Your task to perform on an android device: Open Wikipedia Image 0: 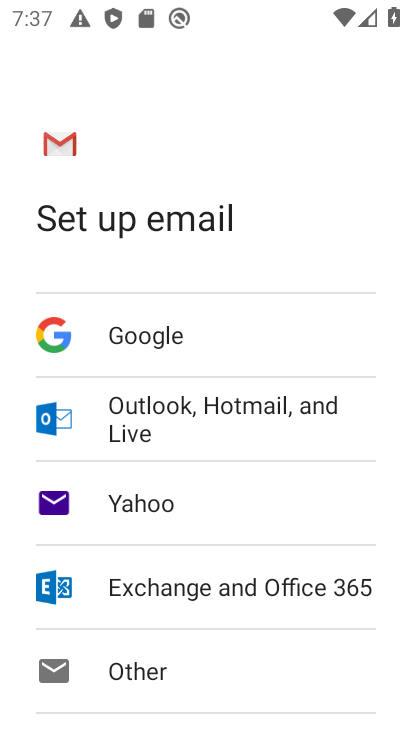
Step 0: press home button
Your task to perform on an android device: Open Wikipedia Image 1: 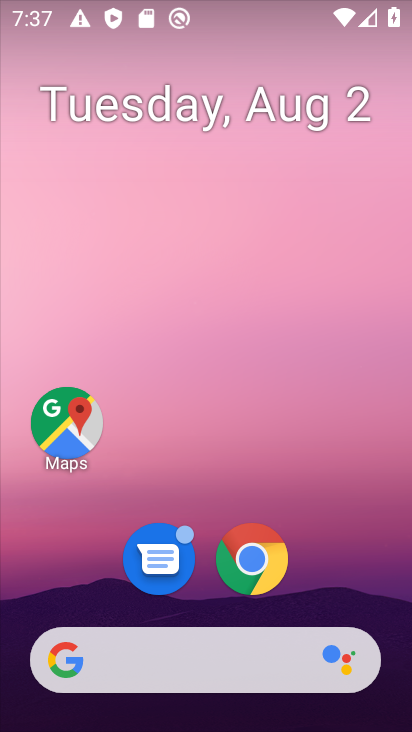
Step 1: click (254, 561)
Your task to perform on an android device: Open Wikipedia Image 2: 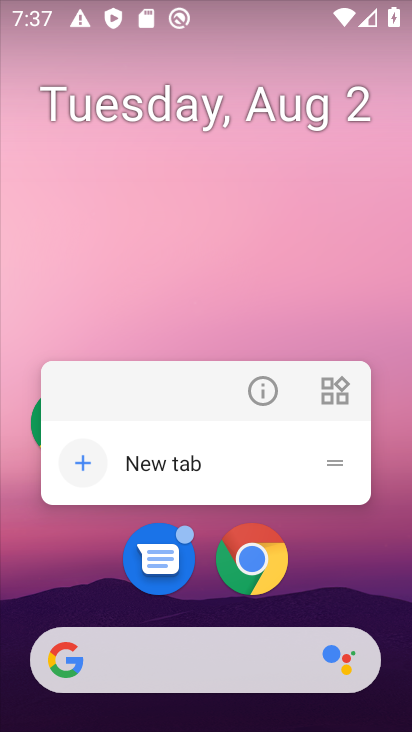
Step 2: click (283, 569)
Your task to perform on an android device: Open Wikipedia Image 3: 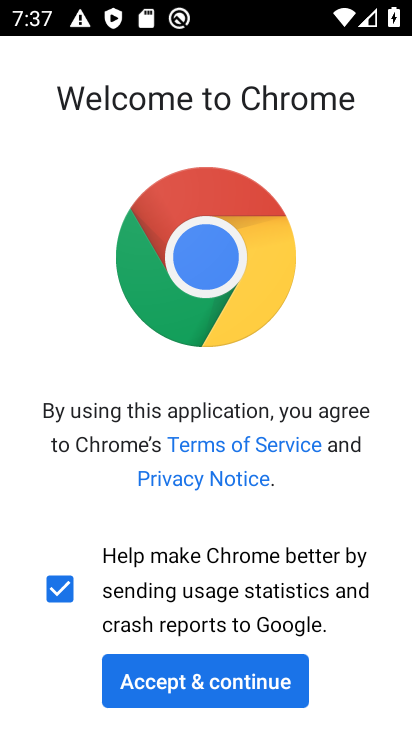
Step 3: click (238, 675)
Your task to perform on an android device: Open Wikipedia Image 4: 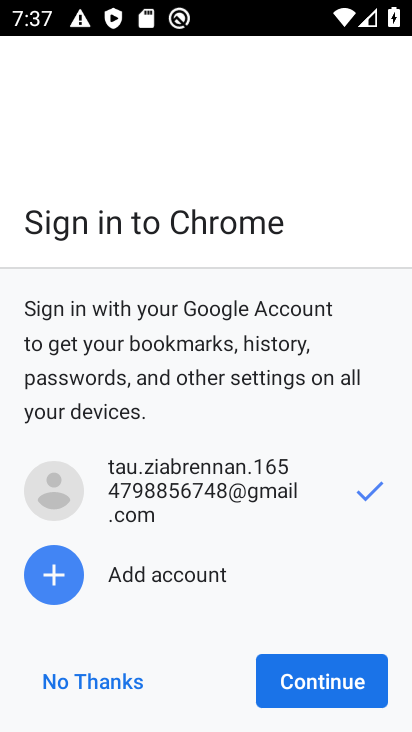
Step 4: click (238, 675)
Your task to perform on an android device: Open Wikipedia Image 5: 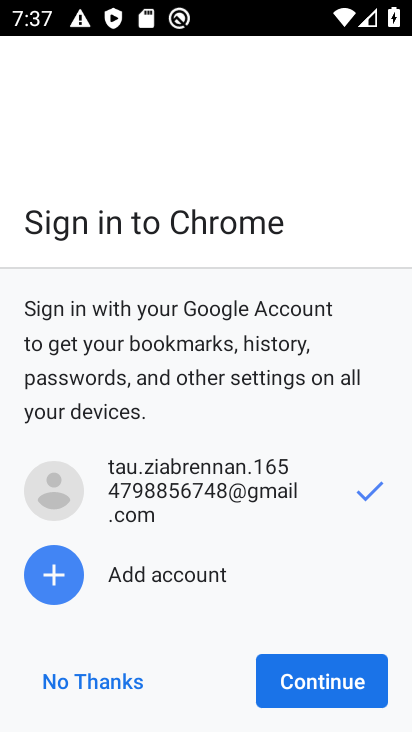
Step 5: click (306, 686)
Your task to perform on an android device: Open Wikipedia Image 6: 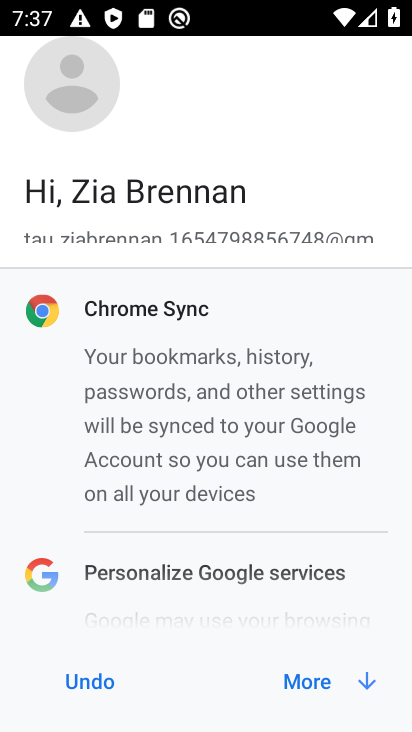
Step 6: click (306, 686)
Your task to perform on an android device: Open Wikipedia Image 7: 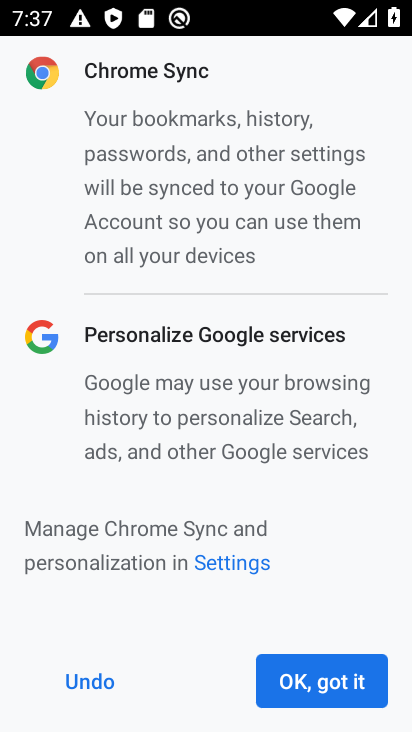
Step 7: click (319, 696)
Your task to perform on an android device: Open Wikipedia Image 8: 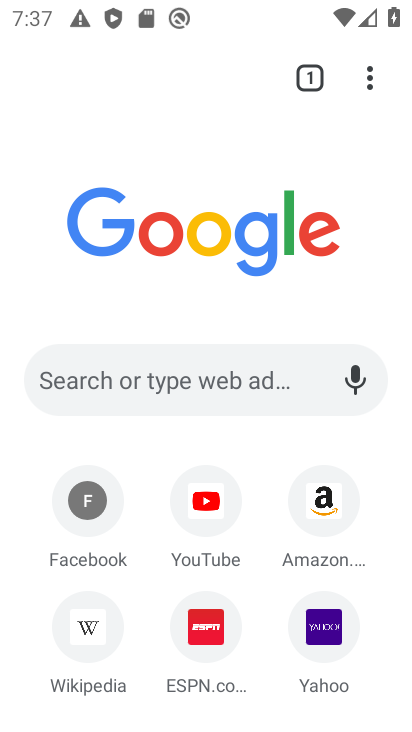
Step 8: click (85, 643)
Your task to perform on an android device: Open Wikipedia Image 9: 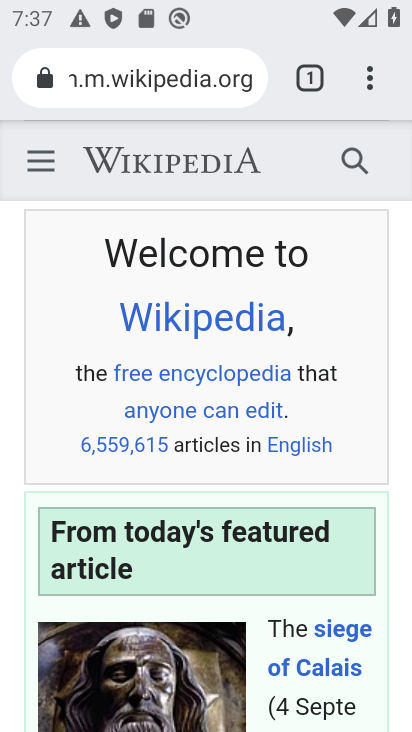
Step 9: task complete